Your task to perform on an android device: Open Chrome and go to settings Image 0: 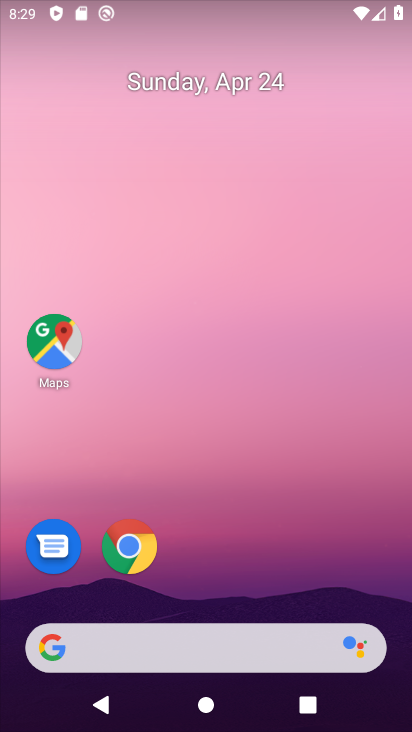
Step 0: click (135, 546)
Your task to perform on an android device: Open Chrome and go to settings Image 1: 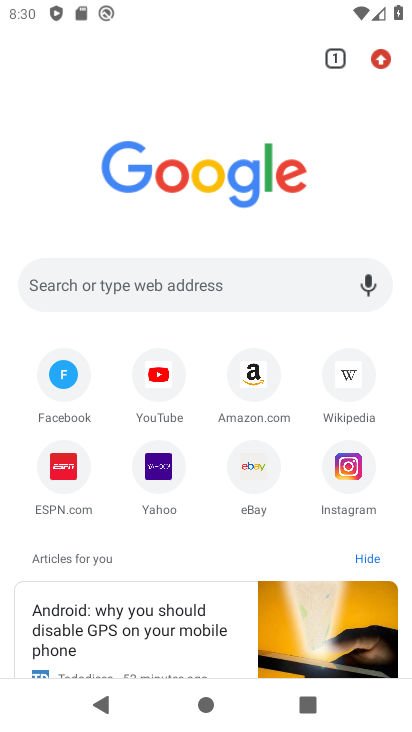
Step 1: click (384, 54)
Your task to perform on an android device: Open Chrome and go to settings Image 2: 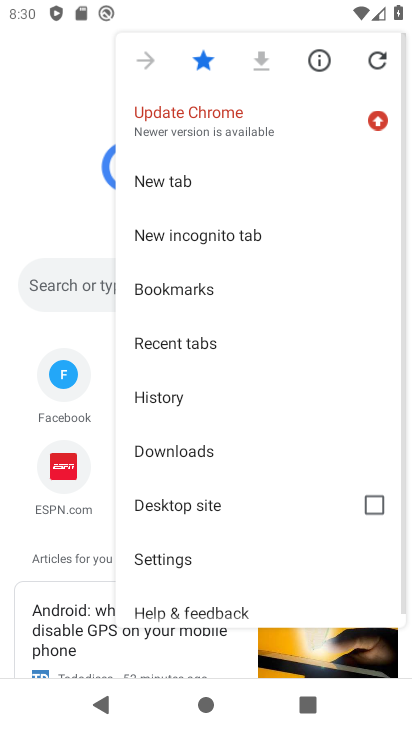
Step 2: drag from (174, 525) to (218, 191)
Your task to perform on an android device: Open Chrome and go to settings Image 3: 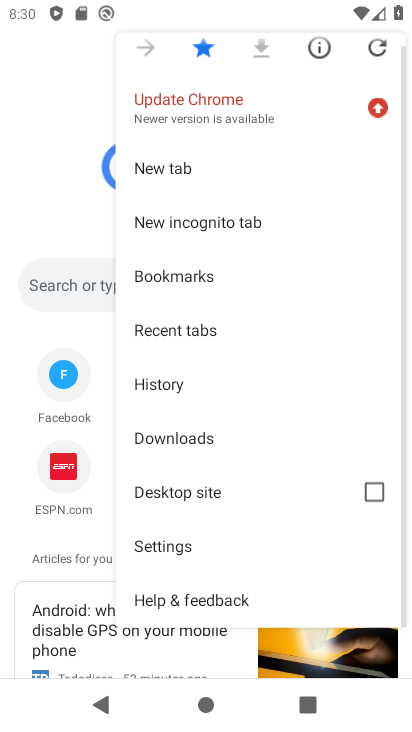
Step 3: click (145, 543)
Your task to perform on an android device: Open Chrome and go to settings Image 4: 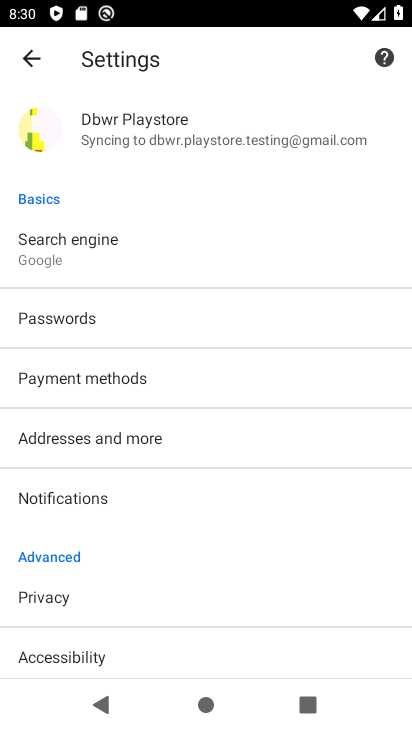
Step 4: task complete